Your task to perform on an android device: open app "Mercado Libre" Image 0: 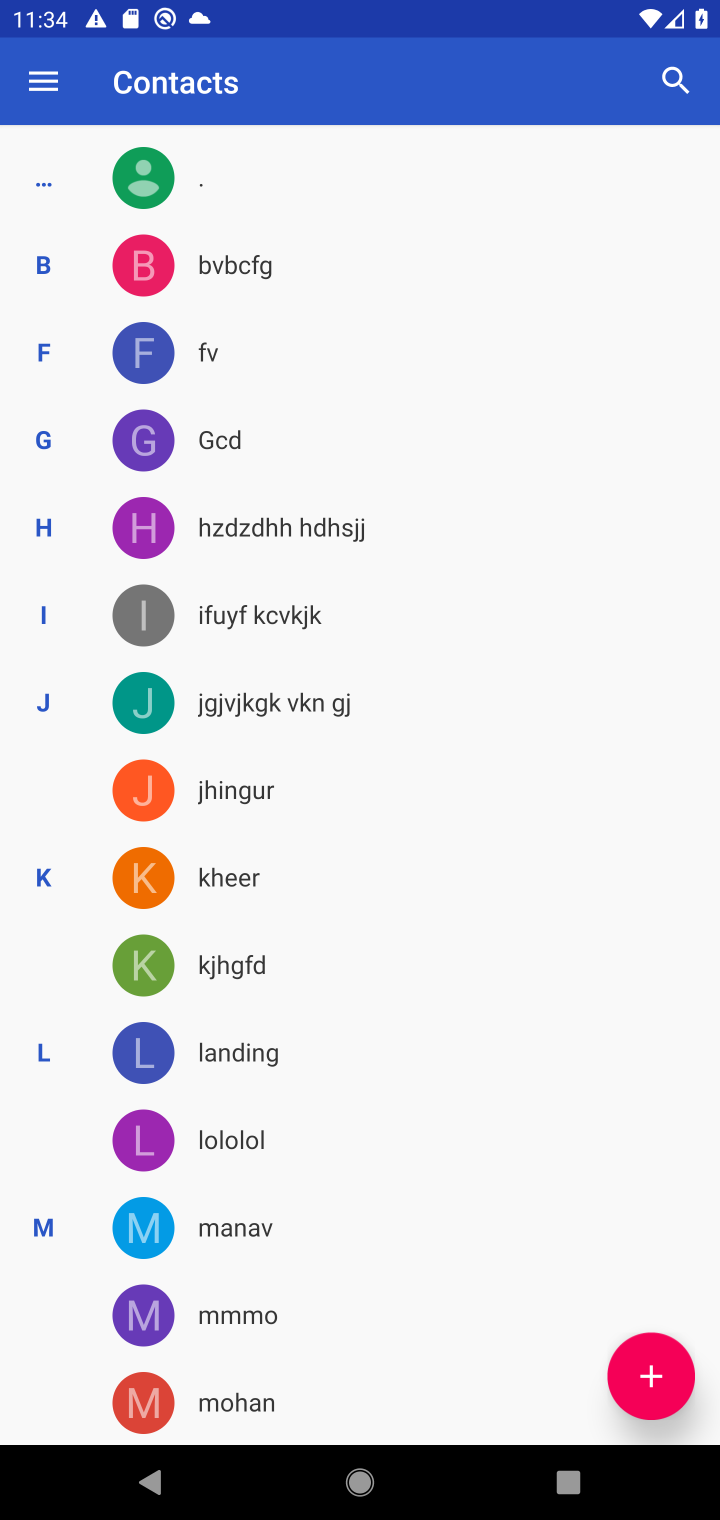
Step 0: press home button
Your task to perform on an android device: open app "Mercado Libre" Image 1: 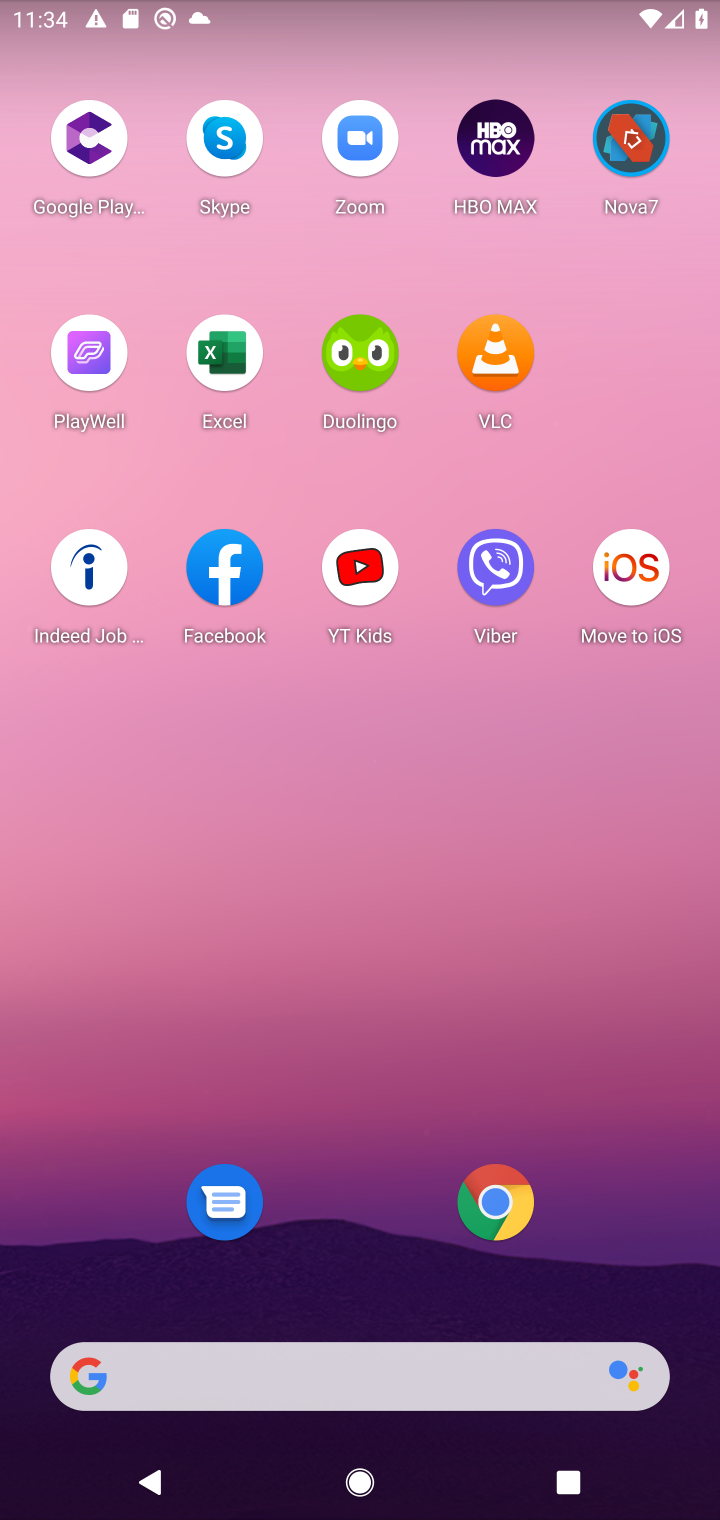
Step 1: click (296, 1385)
Your task to perform on an android device: open app "Mercado Libre" Image 2: 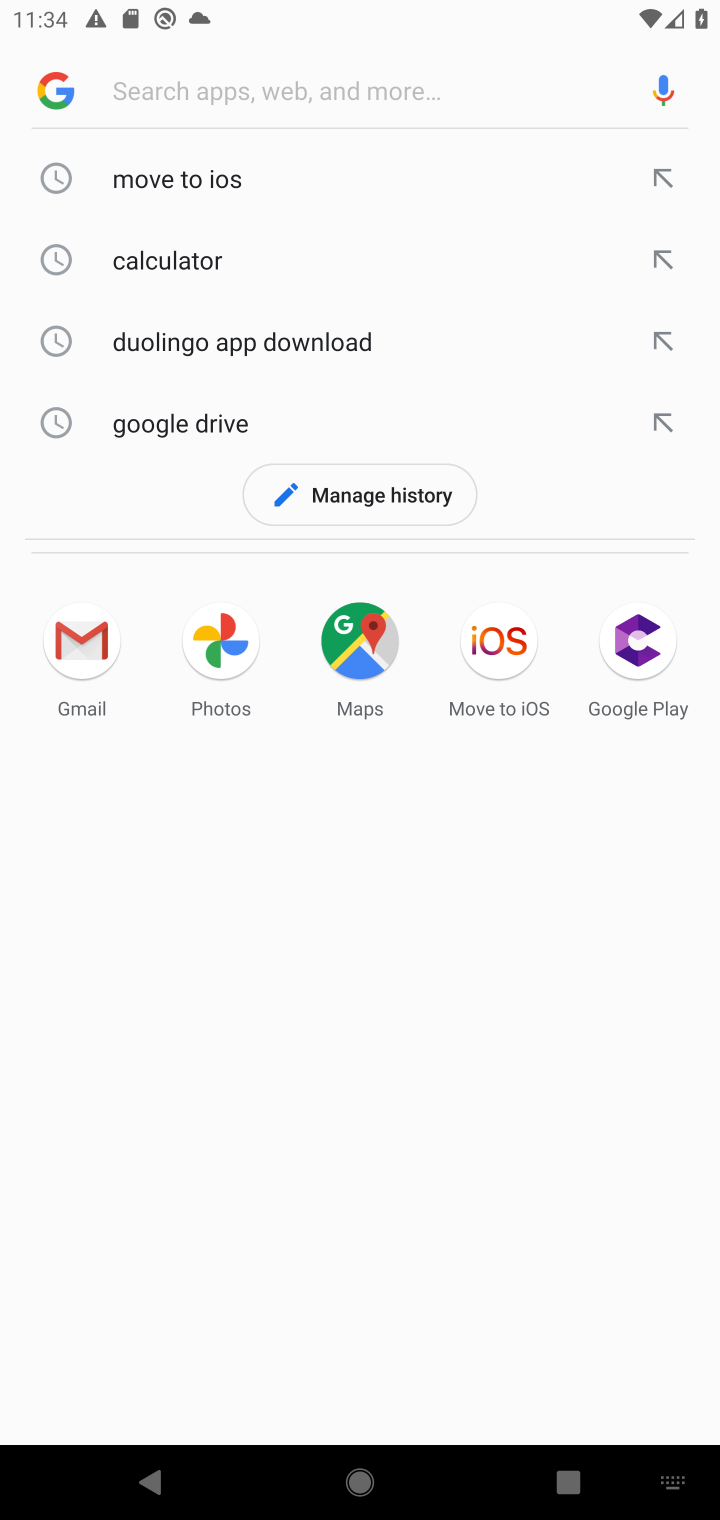
Step 2: type "mercado lab"
Your task to perform on an android device: open app "Mercado Libre" Image 3: 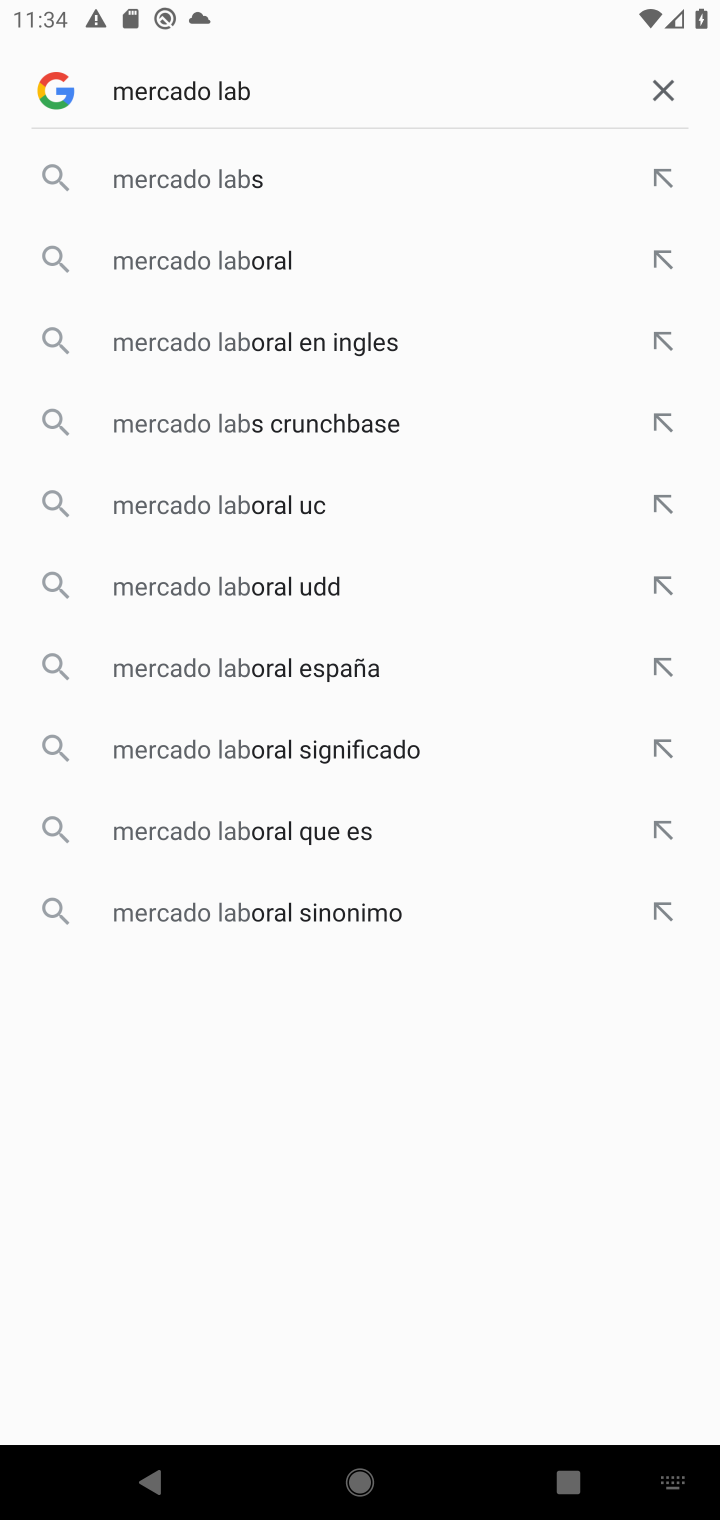
Step 3: click (276, 183)
Your task to perform on an android device: open app "Mercado Libre" Image 4: 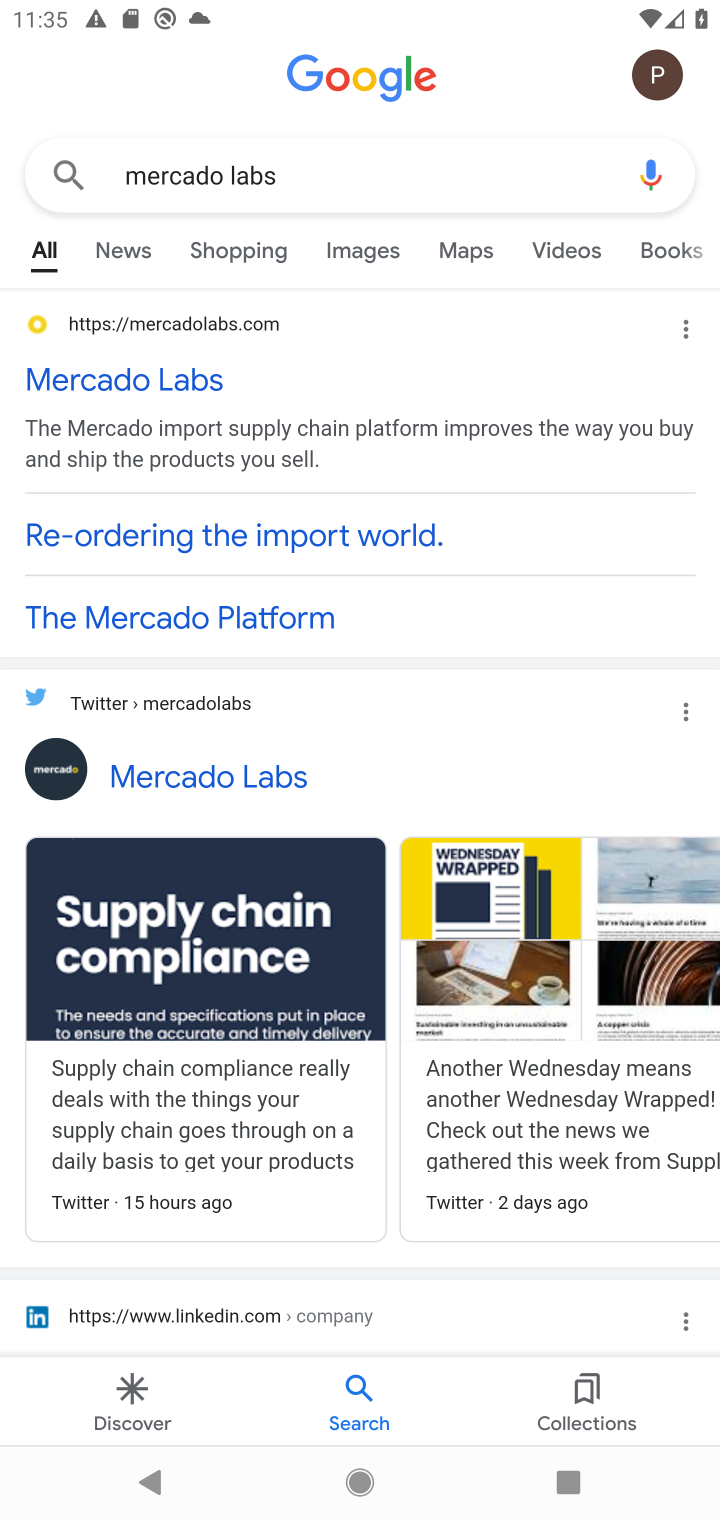
Step 4: task complete